Your task to perform on an android device: Open maps Image 0: 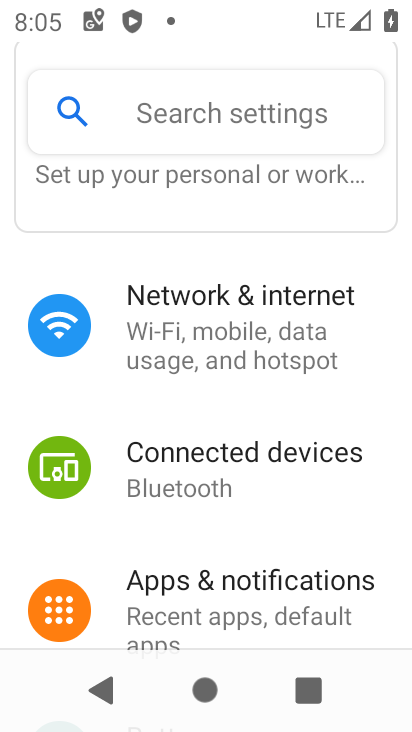
Step 0: press home button
Your task to perform on an android device: Open maps Image 1: 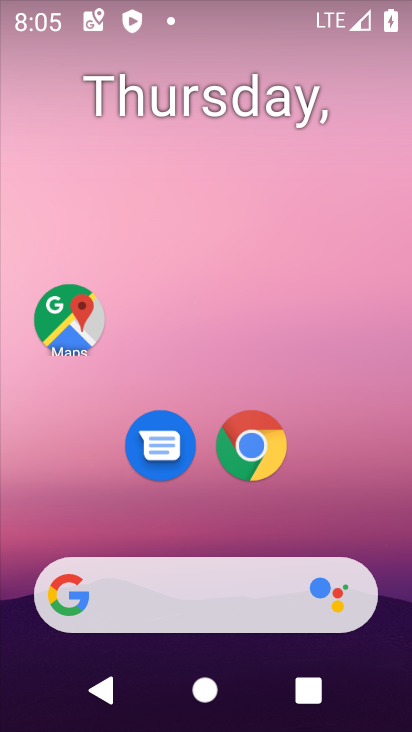
Step 1: drag from (213, 560) to (229, 136)
Your task to perform on an android device: Open maps Image 2: 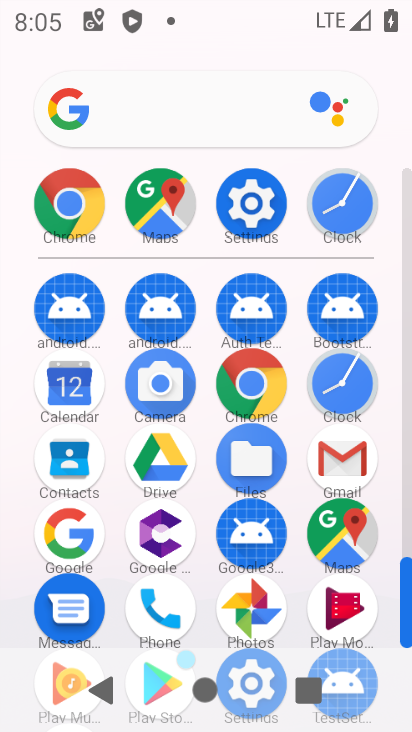
Step 2: click (341, 535)
Your task to perform on an android device: Open maps Image 3: 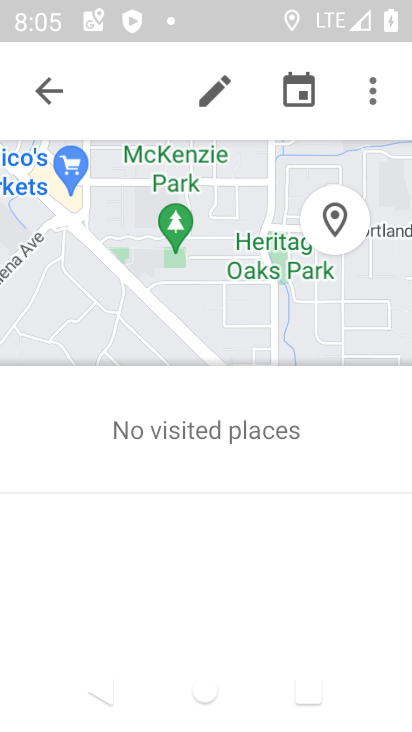
Step 3: task complete